Your task to perform on an android device: Open the Play Movies app and select the watchlist tab. Image 0: 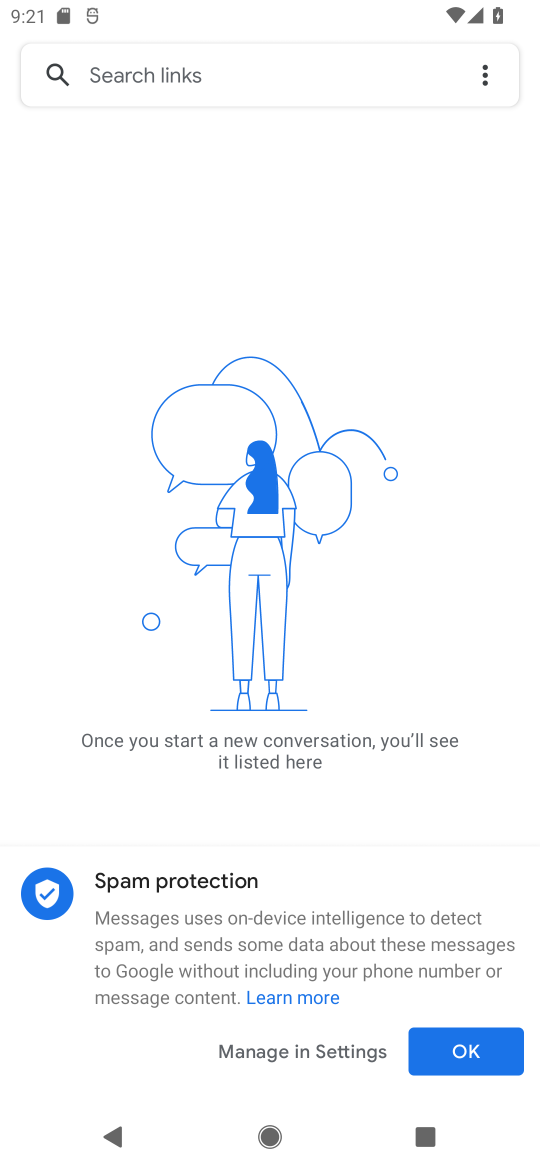
Step 0: press home button
Your task to perform on an android device: Open the Play Movies app and select the watchlist tab. Image 1: 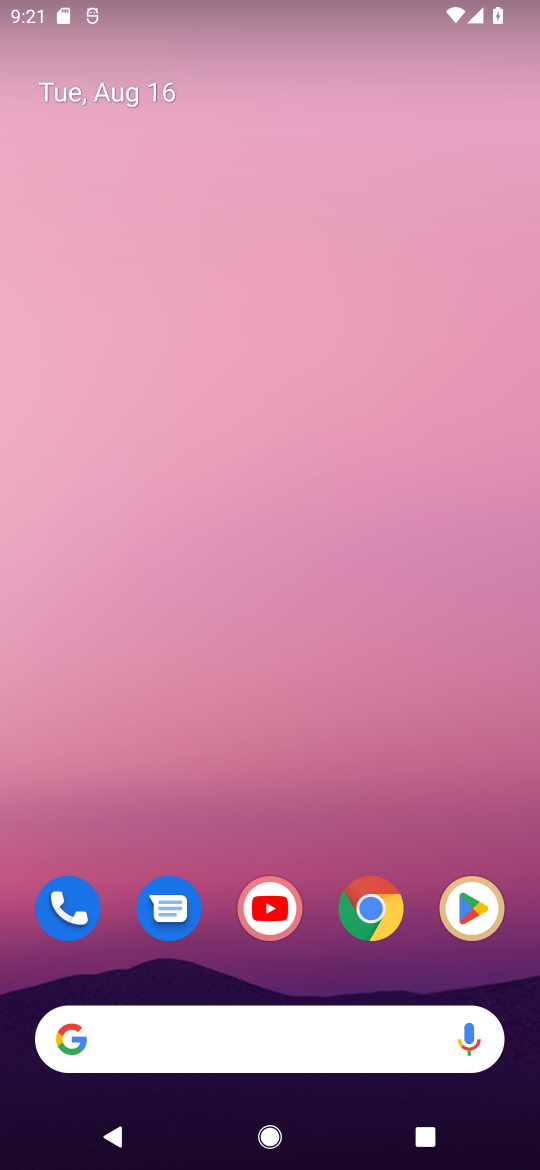
Step 1: task complete